Your task to perform on an android device: Open Android settings Image 0: 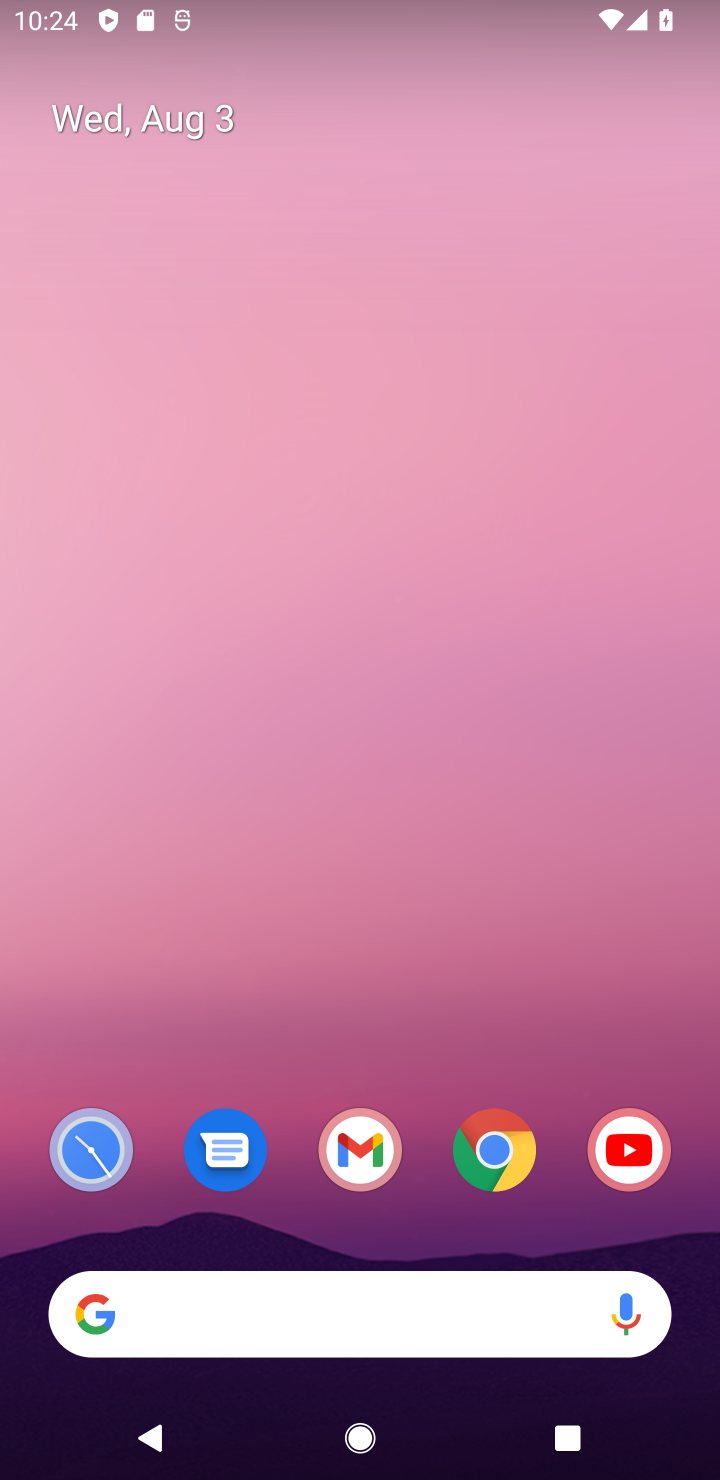
Step 0: press home button
Your task to perform on an android device: Open Android settings Image 1: 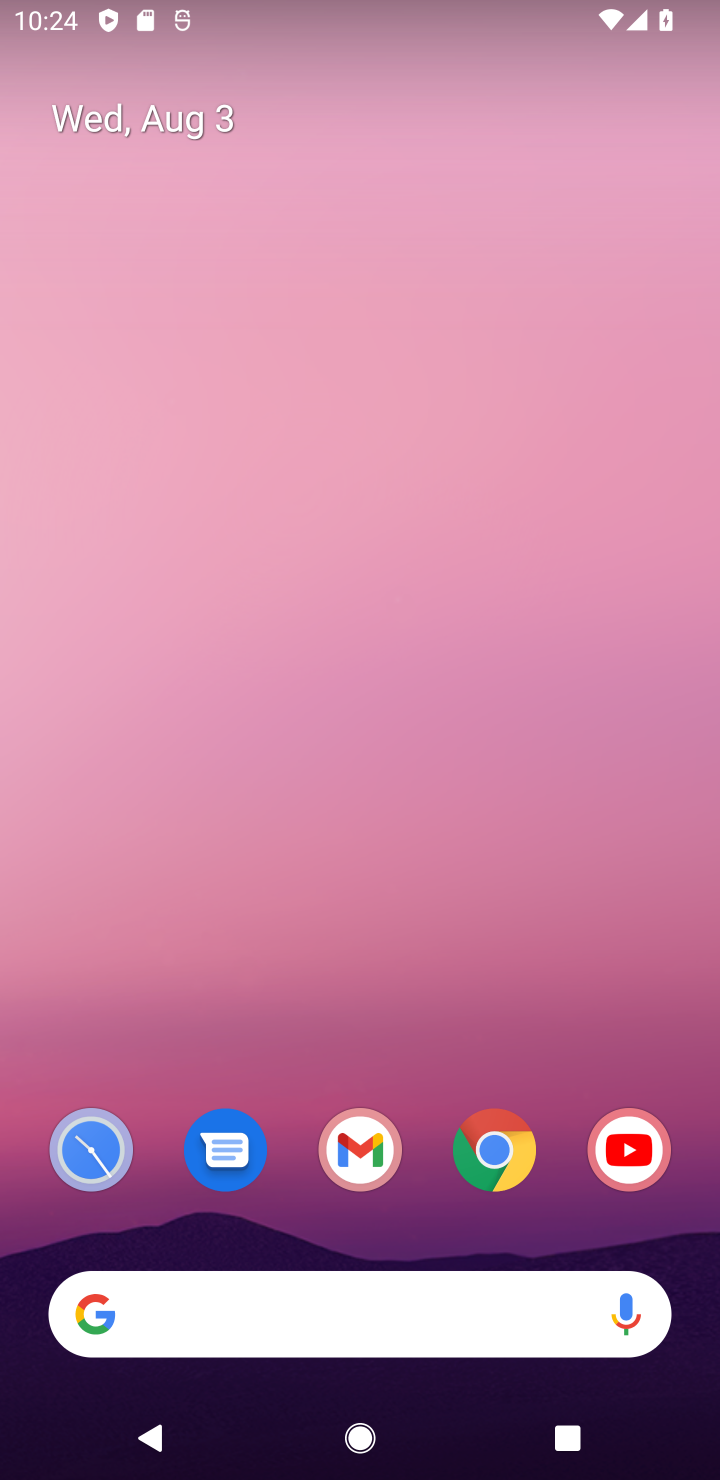
Step 1: drag from (562, 1002) to (520, 384)
Your task to perform on an android device: Open Android settings Image 2: 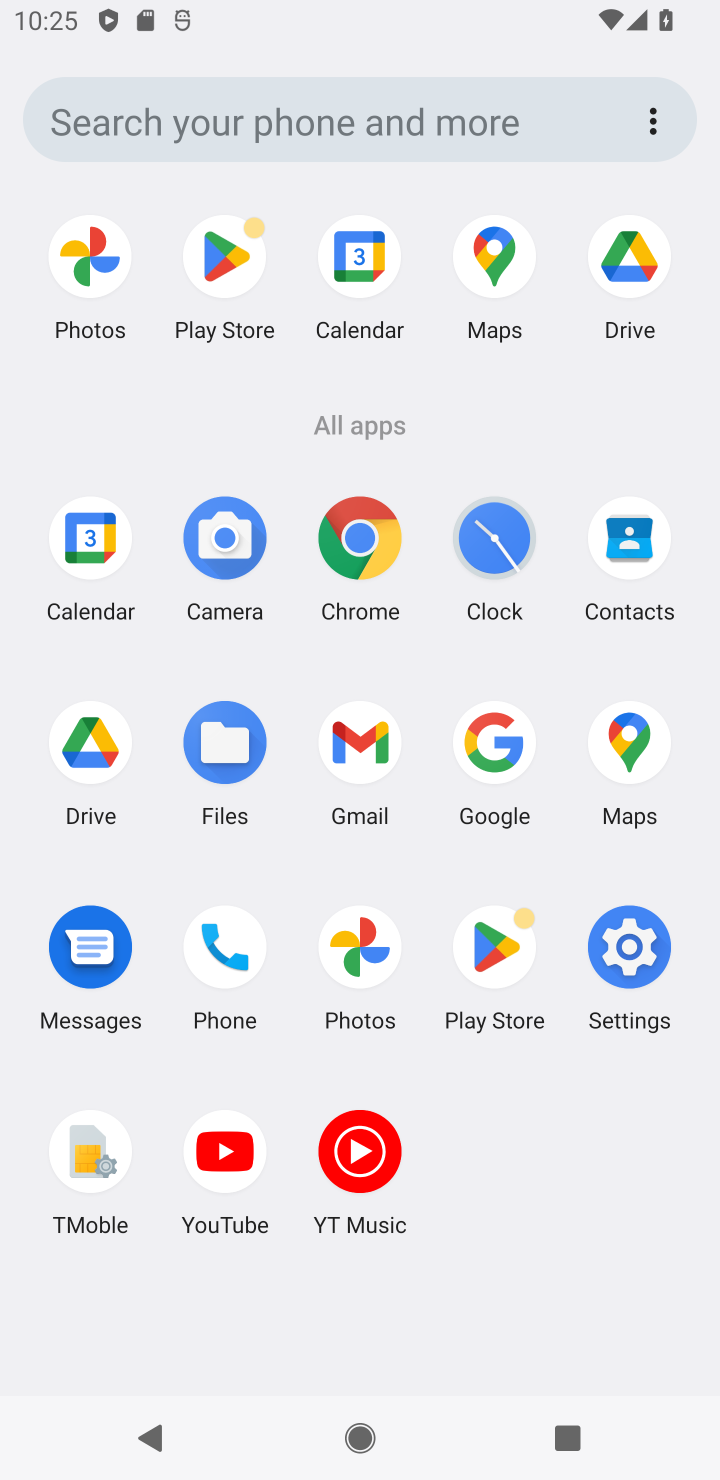
Step 2: click (645, 957)
Your task to perform on an android device: Open Android settings Image 3: 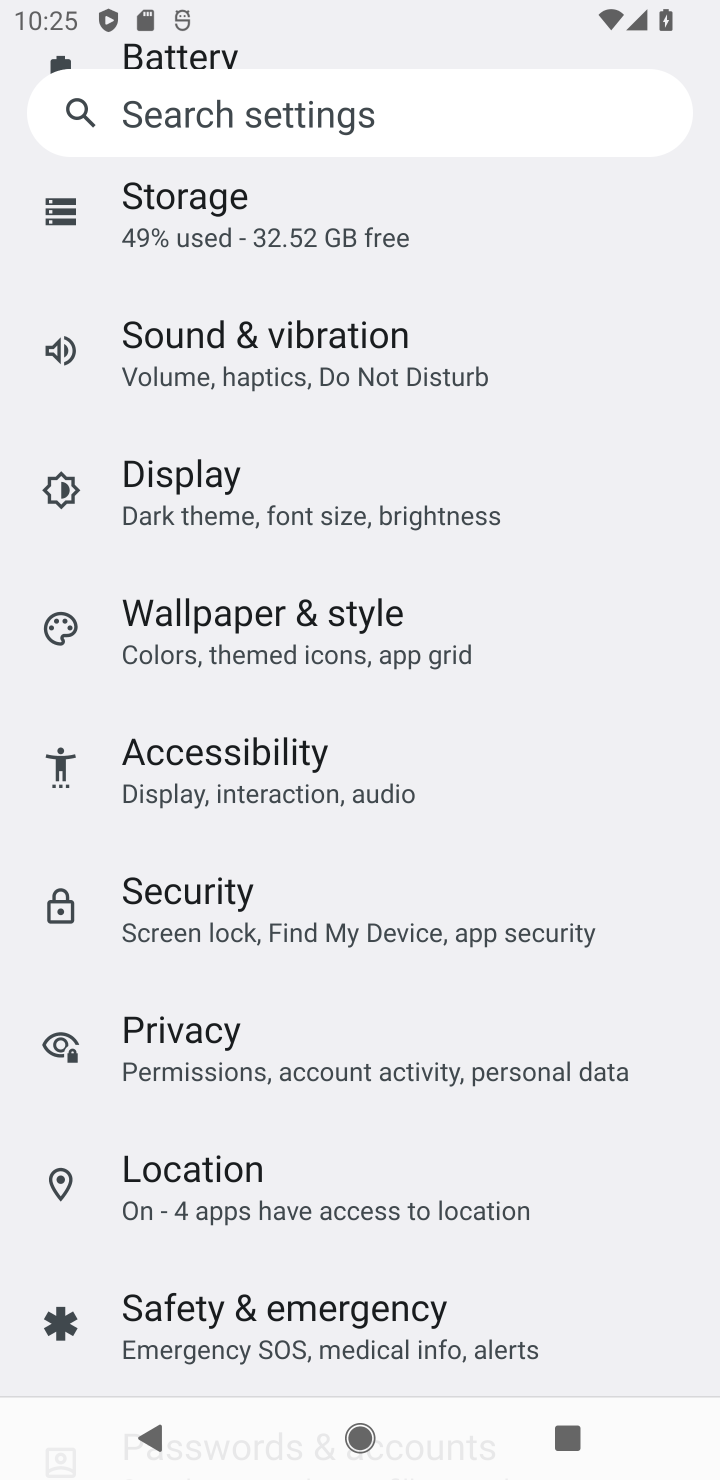
Step 3: drag from (639, 703) to (643, 824)
Your task to perform on an android device: Open Android settings Image 4: 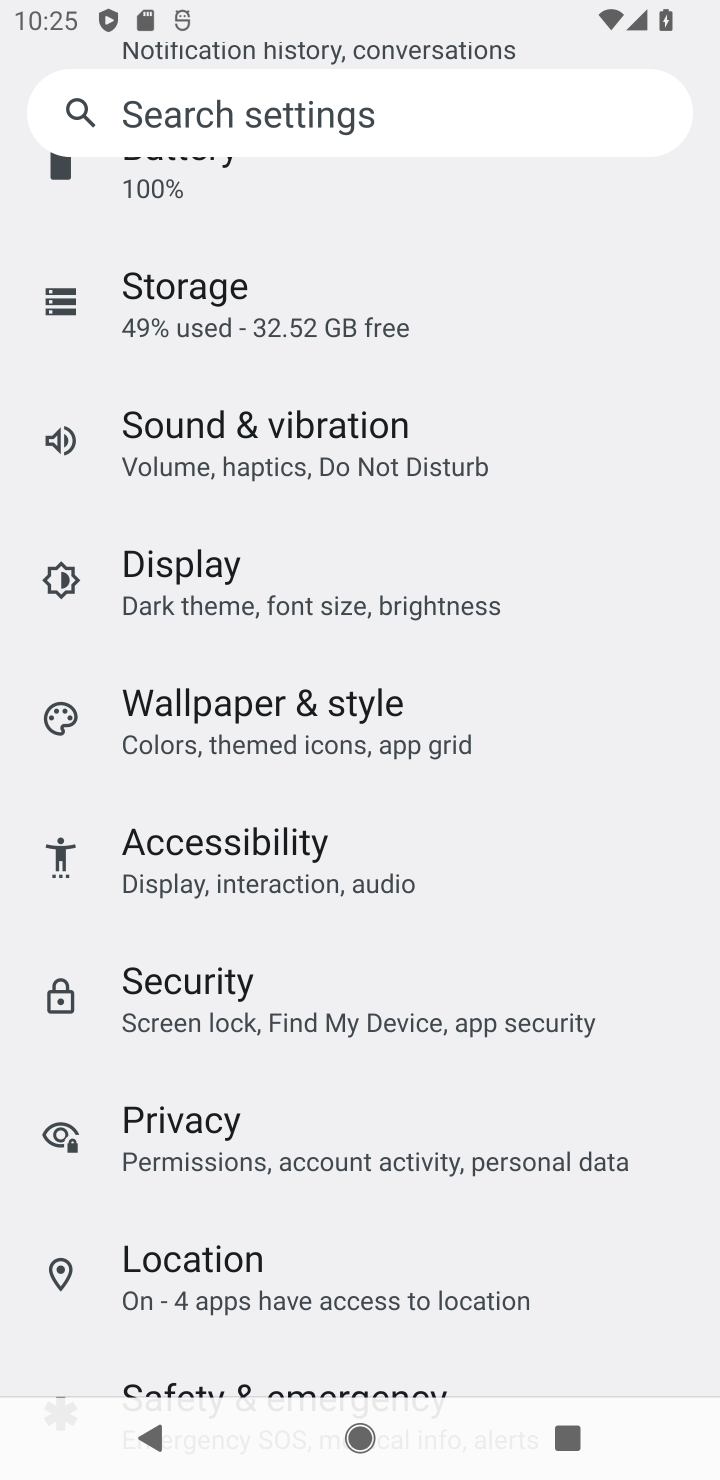
Step 4: drag from (627, 699) to (634, 827)
Your task to perform on an android device: Open Android settings Image 5: 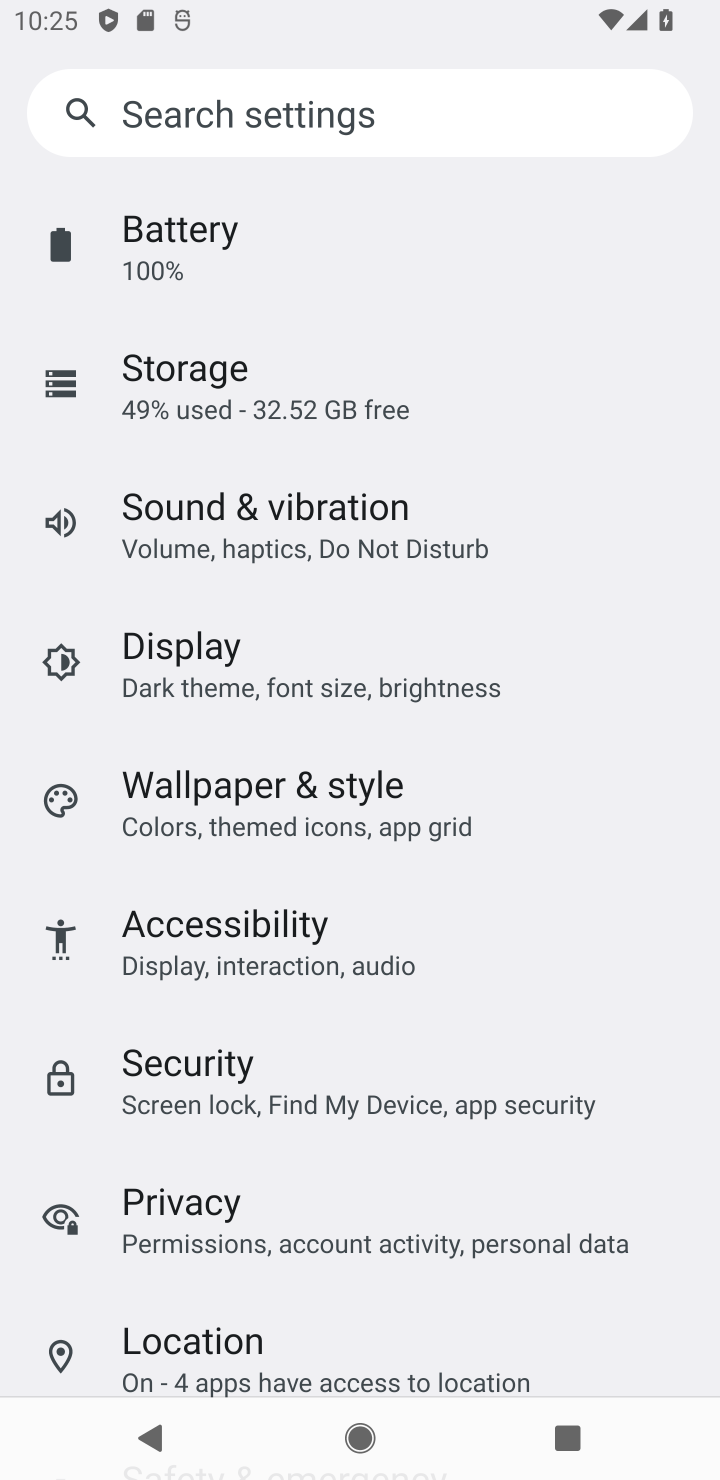
Step 5: drag from (631, 658) to (629, 813)
Your task to perform on an android device: Open Android settings Image 6: 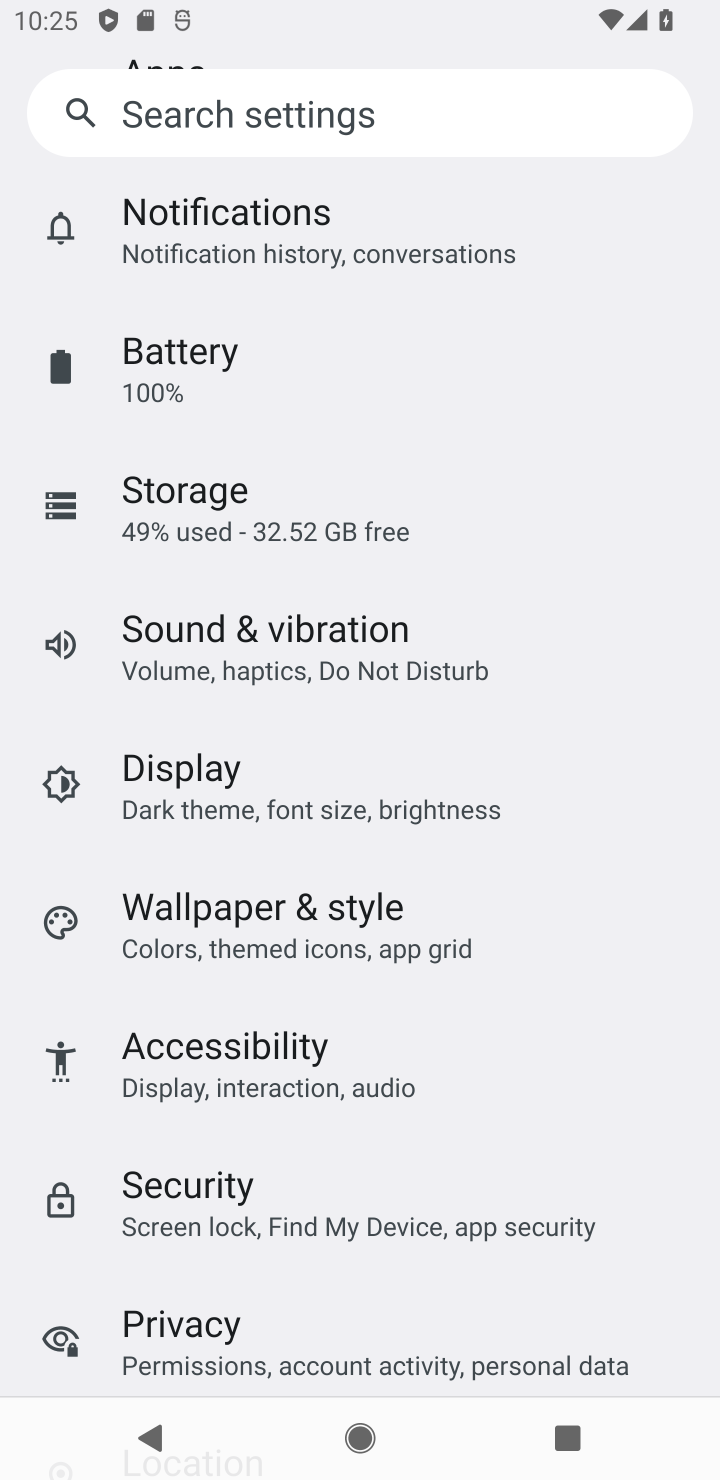
Step 6: drag from (611, 668) to (606, 853)
Your task to perform on an android device: Open Android settings Image 7: 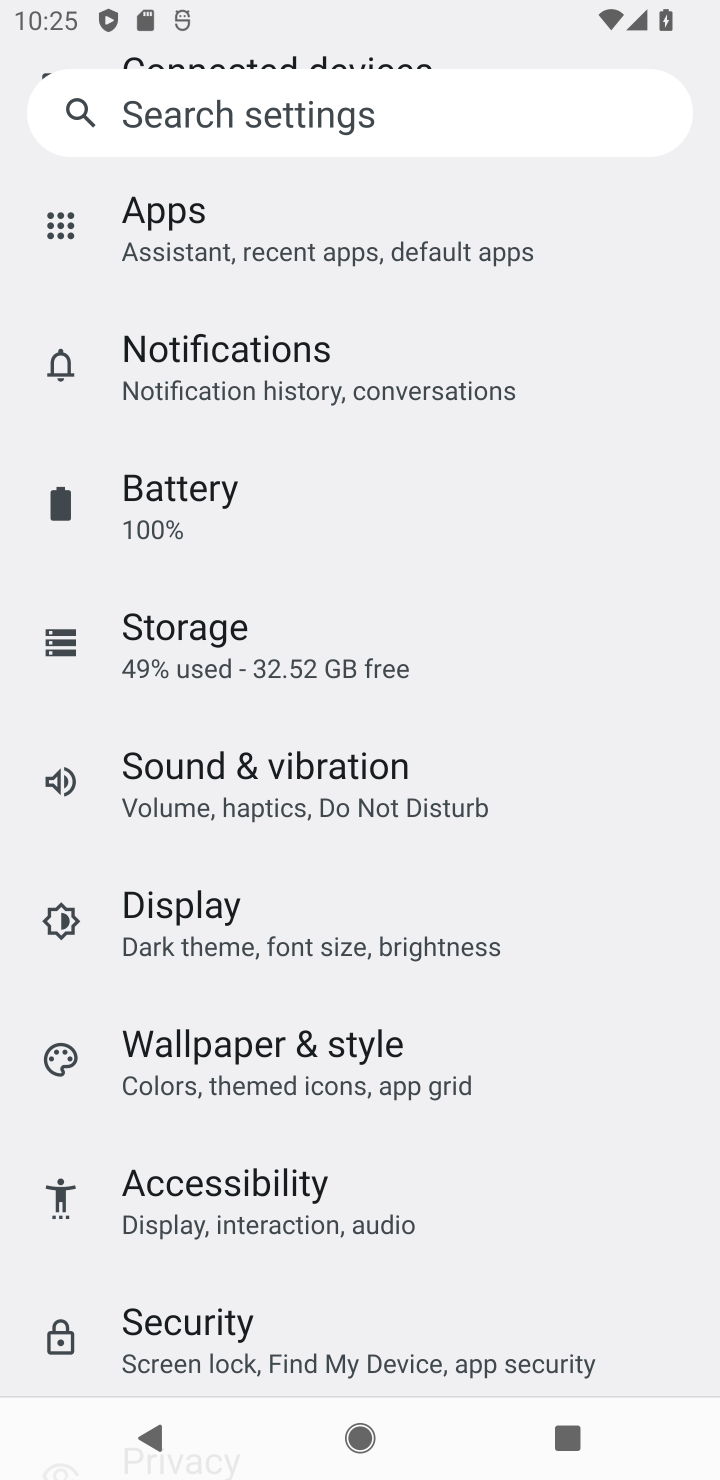
Step 7: drag from (591, 561) to (601, 785)
Your task to perform on an android device: Open Android settings Image 8: 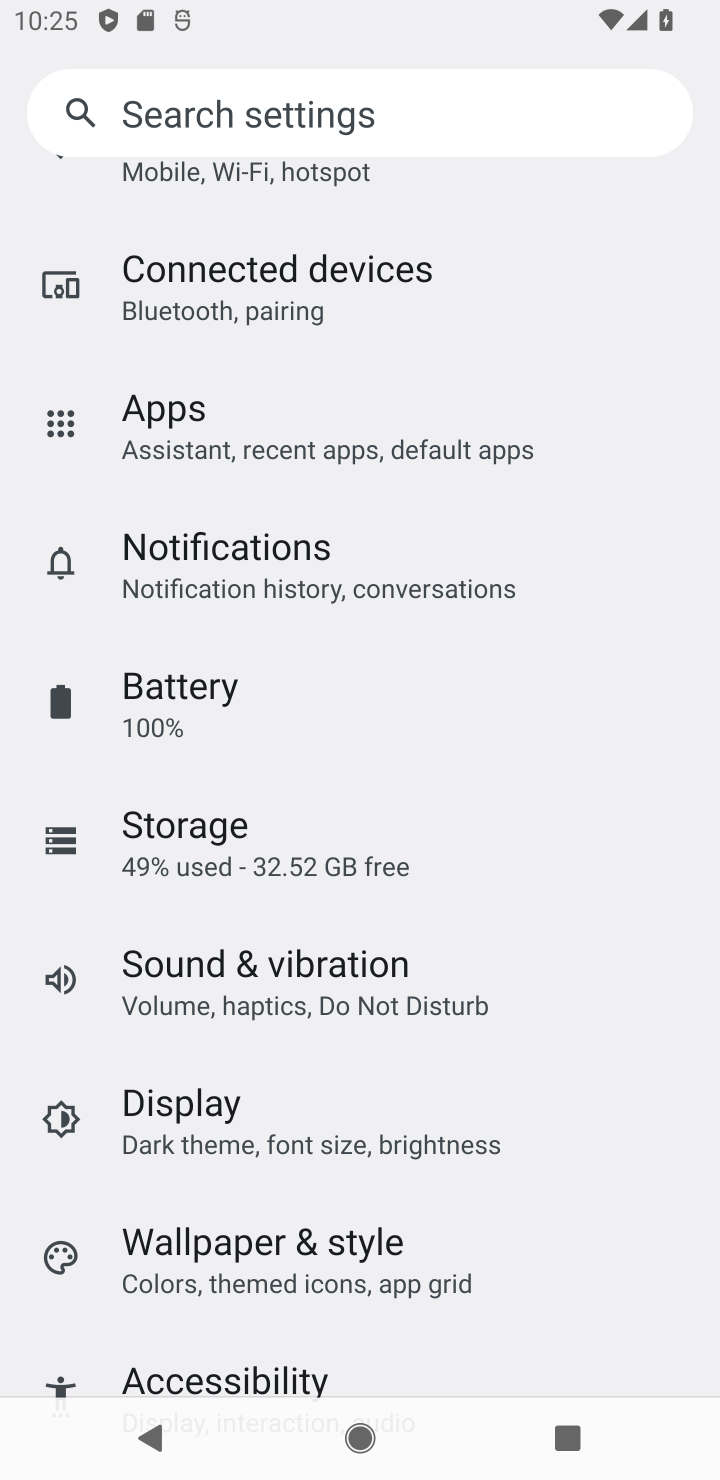
Step 8: drag from (607, 545) to (612, 878)
Your task to perform on an android device: Open Android settings Image 9: 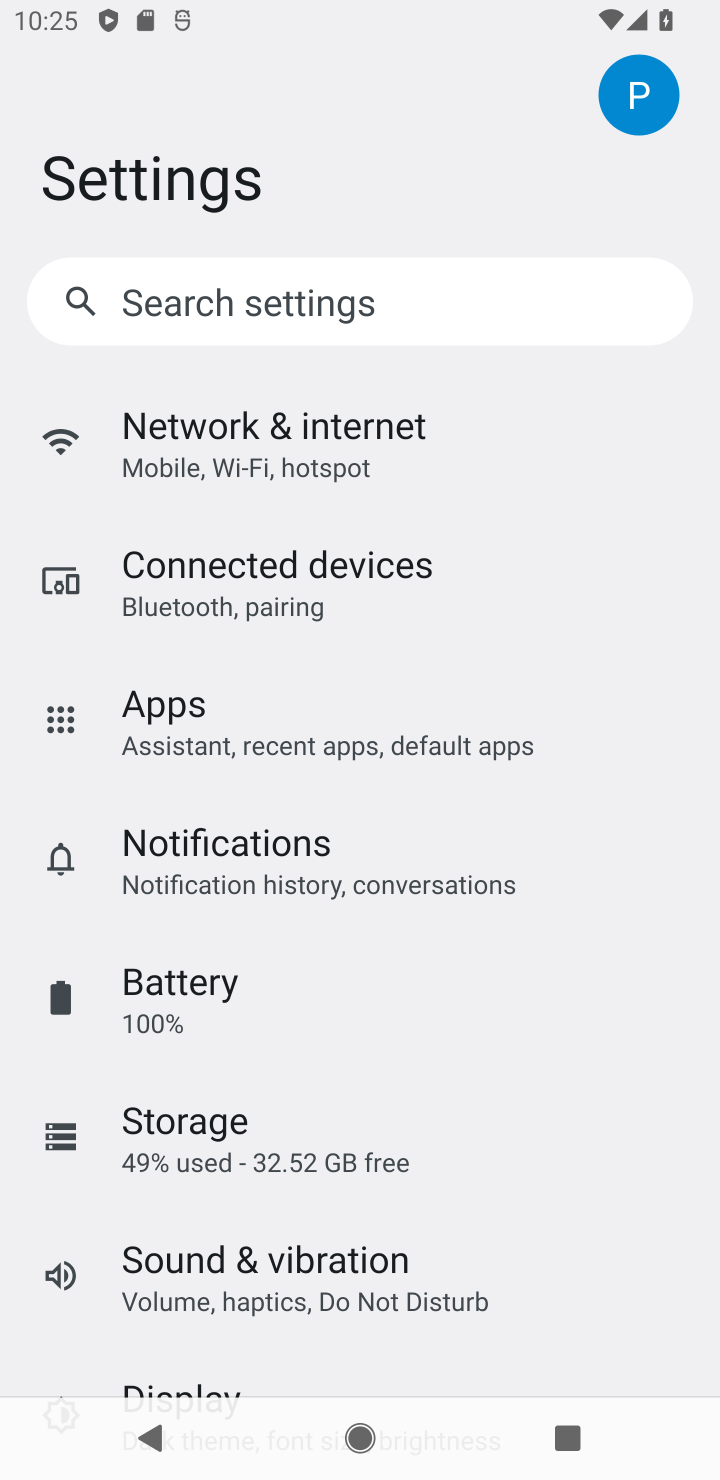
Step 9: drag from (573, 1117) to (591, 916)
Your task to perform on an android device: Open Android settings Image 10: 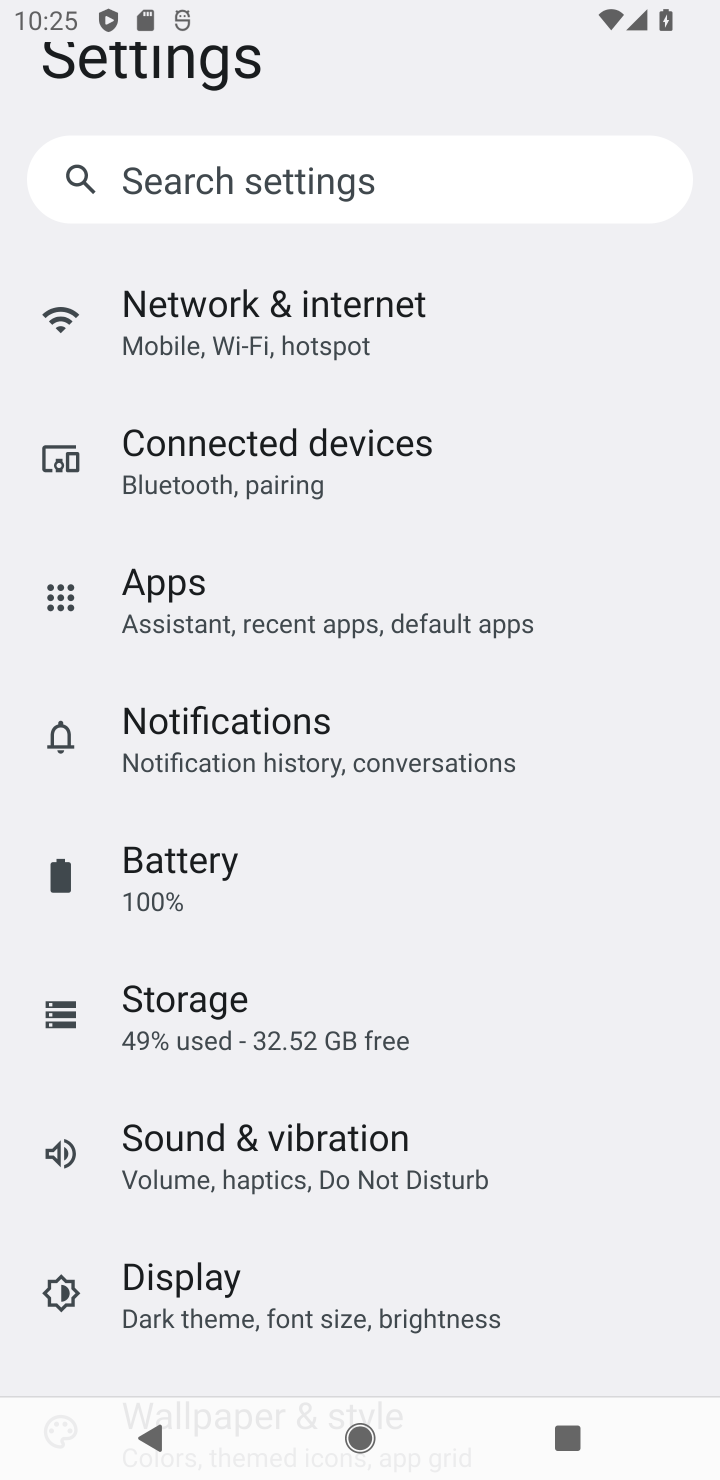
Step 10: drag from (585, 1195) to (593, 951)
Your task to perform on an android device: Open Android settings Image 11: 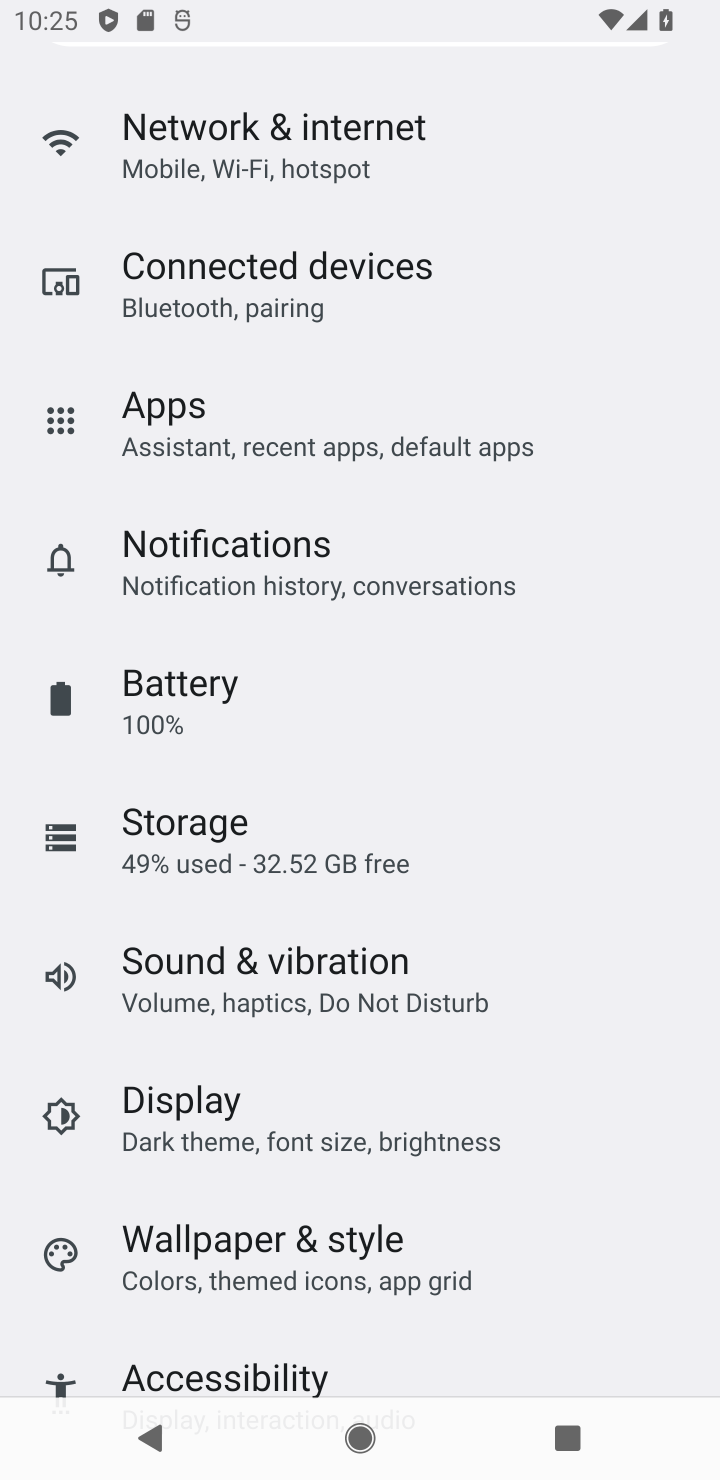
Step 11: drag from (589, 1209) to (583, 966)
Your task to perform on an android device: Open Android settings Image 12: 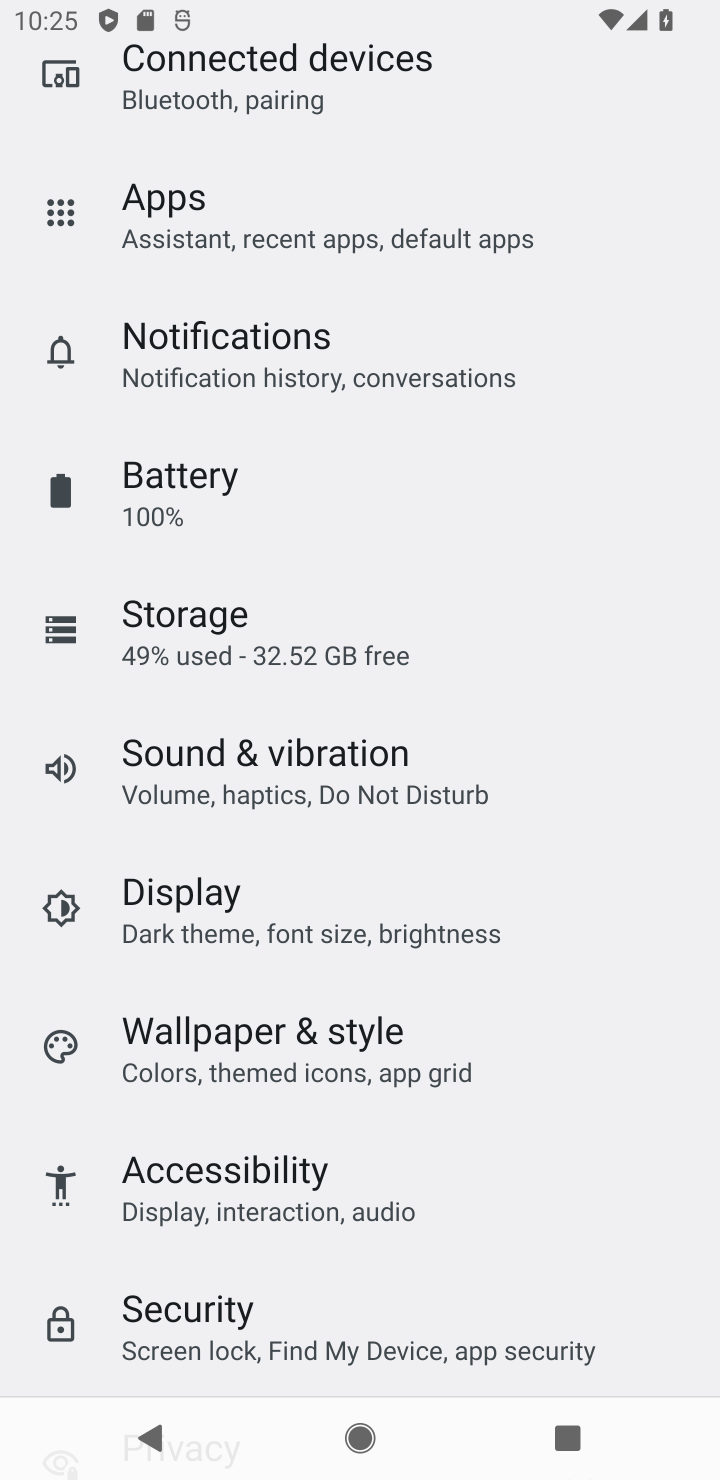
Step 12: drag from (587, 1229) to (595, 931)
Your task to perform on an android device: Open Android settings Image 13: 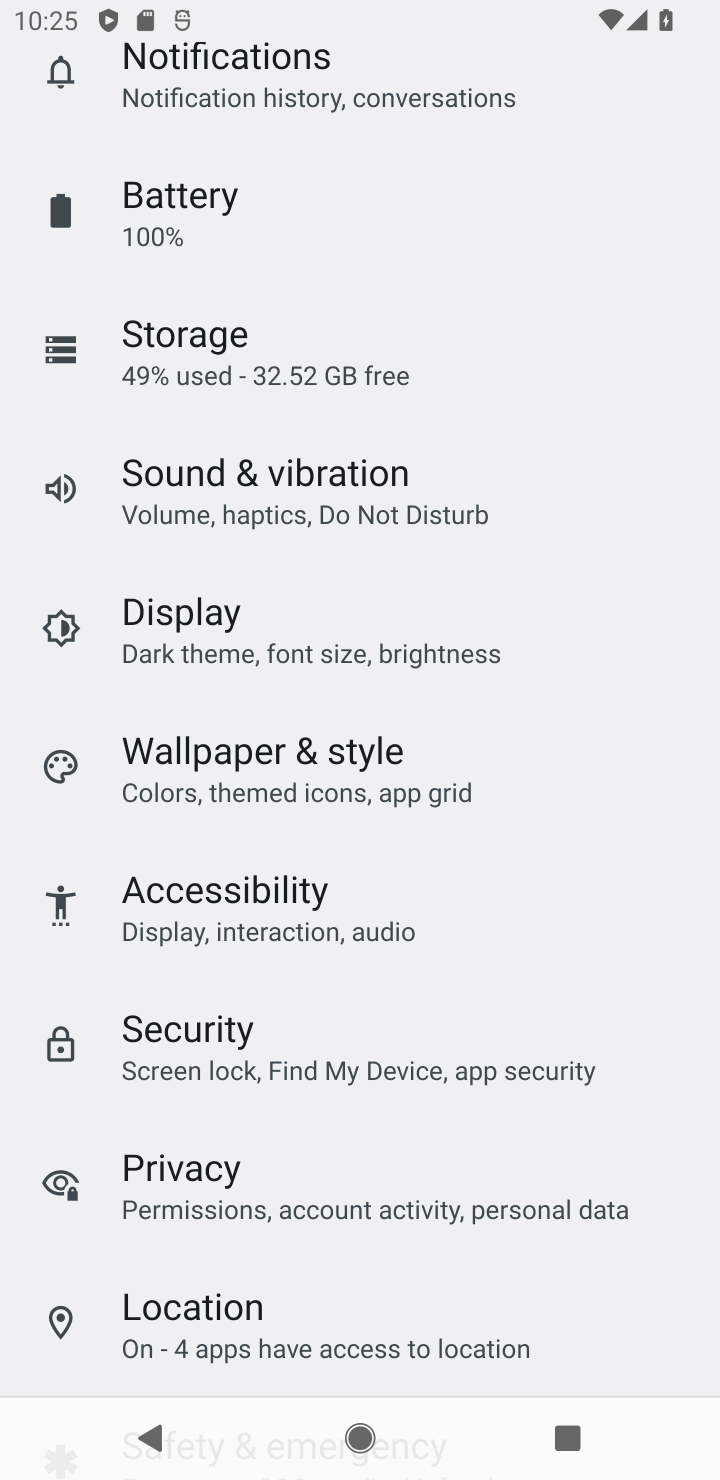
Step 13: drag from (602, 1288) to (637, 1003)
Your task to perform on an android device: Open Android settings Image 14: 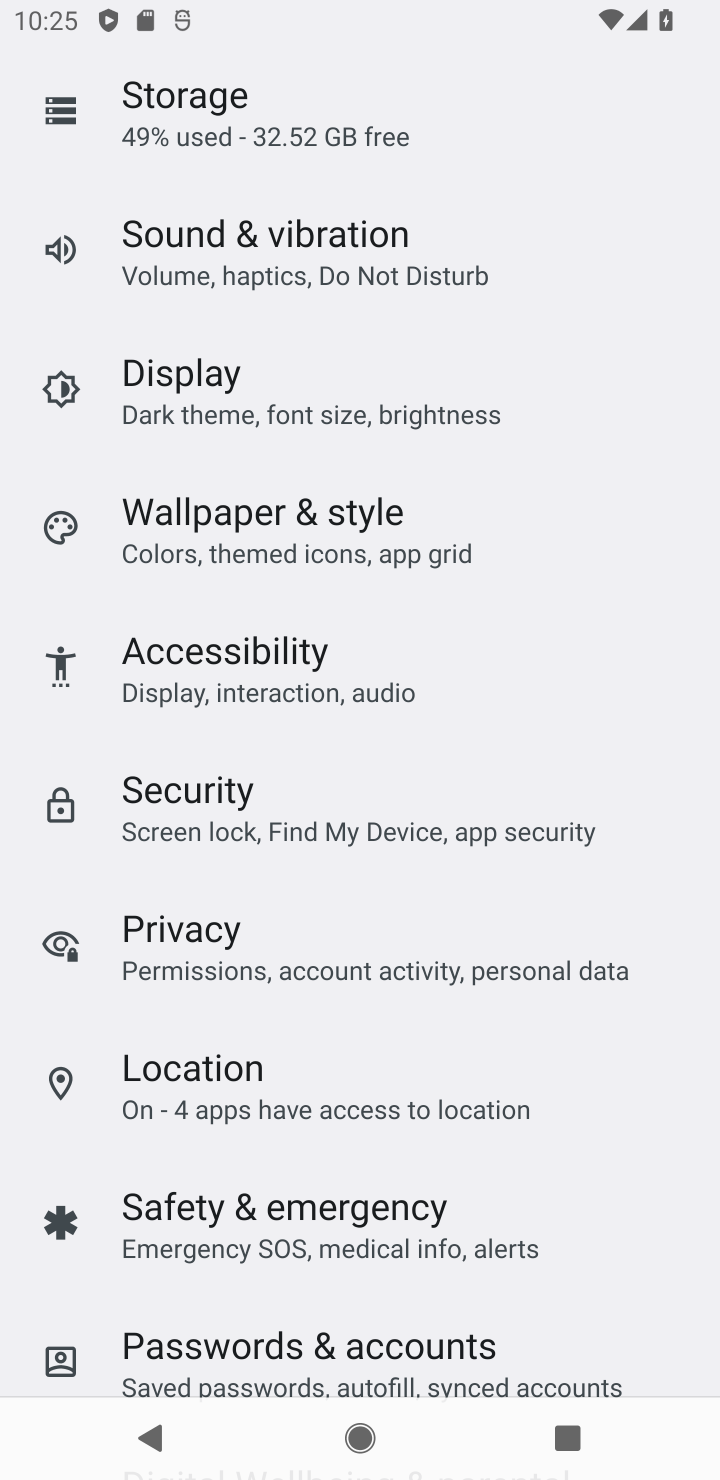
Step 14: drag from (637, 1305) to (645, 957)
Your task to perform on an android device: Open Android settings Image 15: 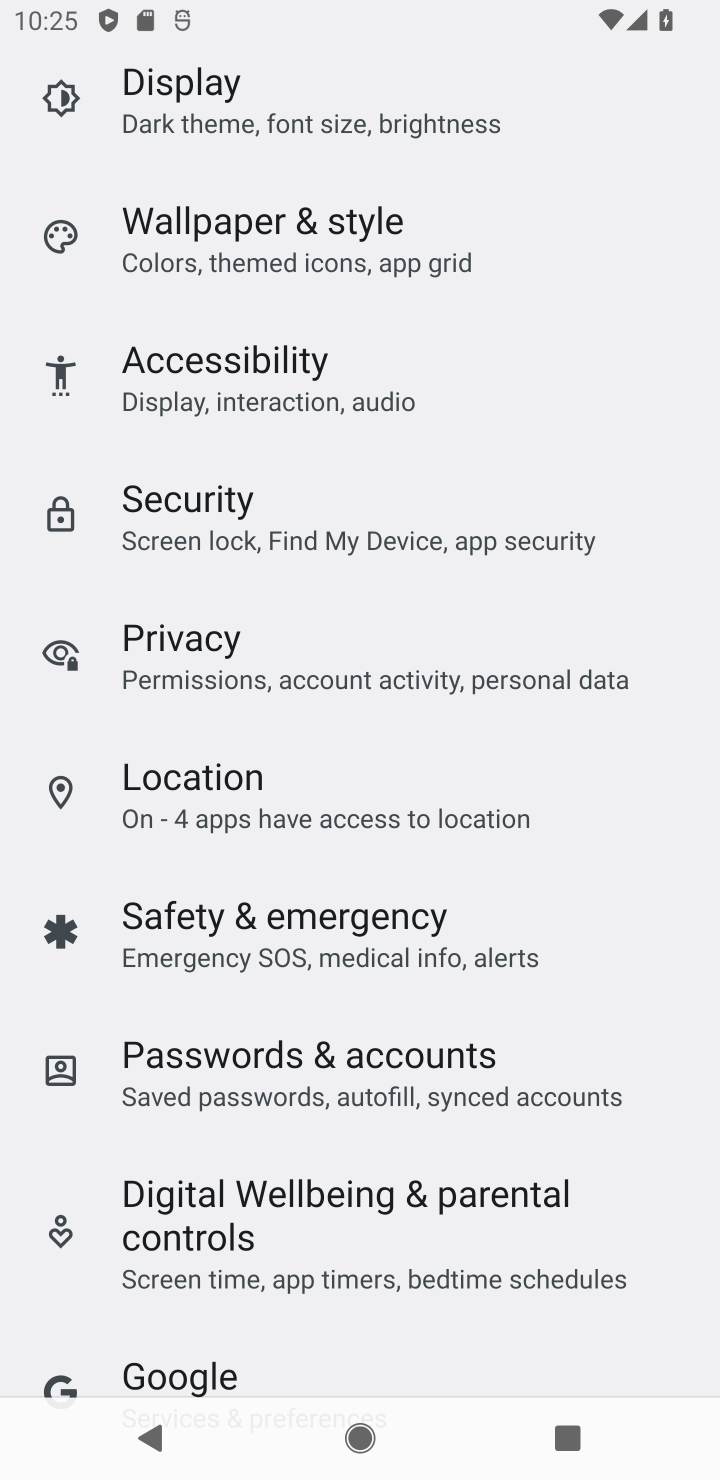
Step 15: drag from (645, 1326) to (650, 935)
Your task to perform on an android device: Open Android settings Image 16: 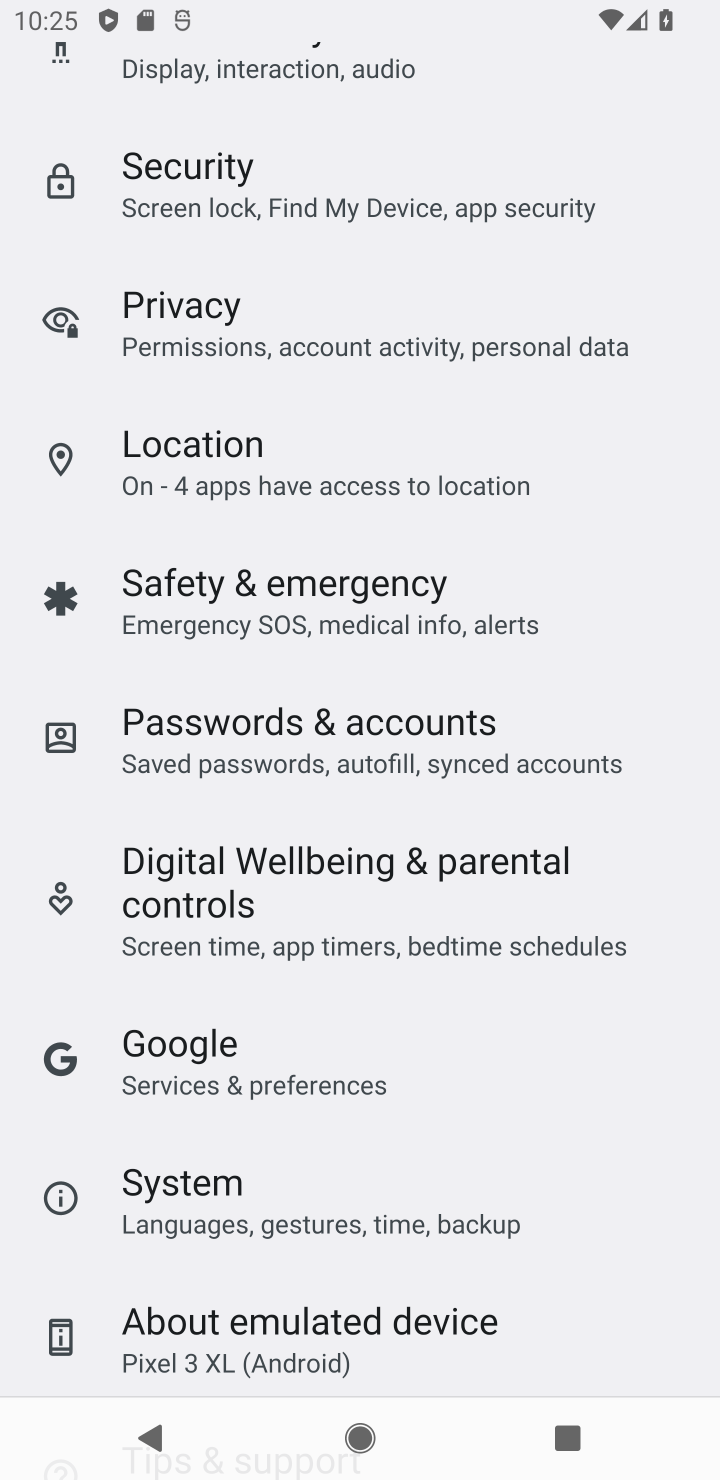
Step 16: drag from (618, 1296) to (616, 966)
Your task to perform on an android device: Open Android settings Image 17: 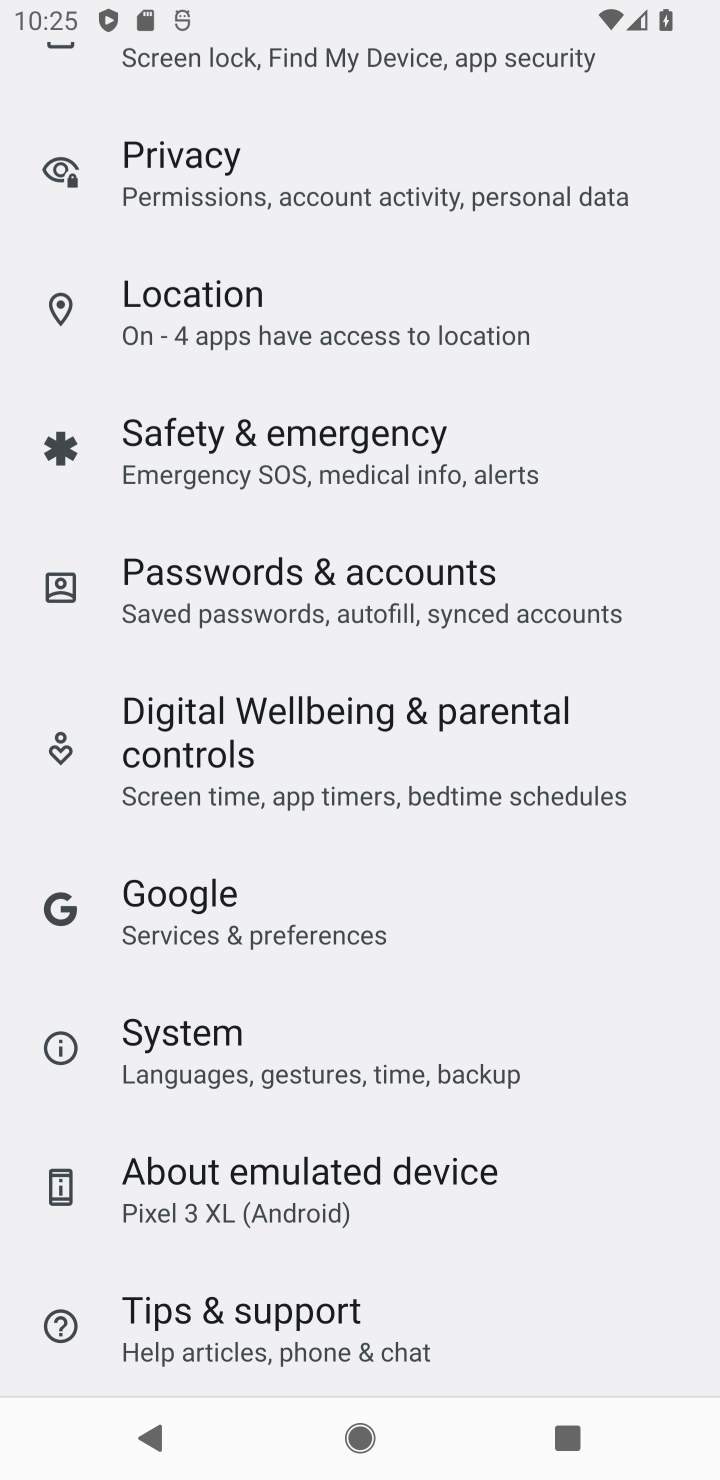
Step 17: click (536, 1060)
Your task to perform on an android device: Open Android settings Image 18: 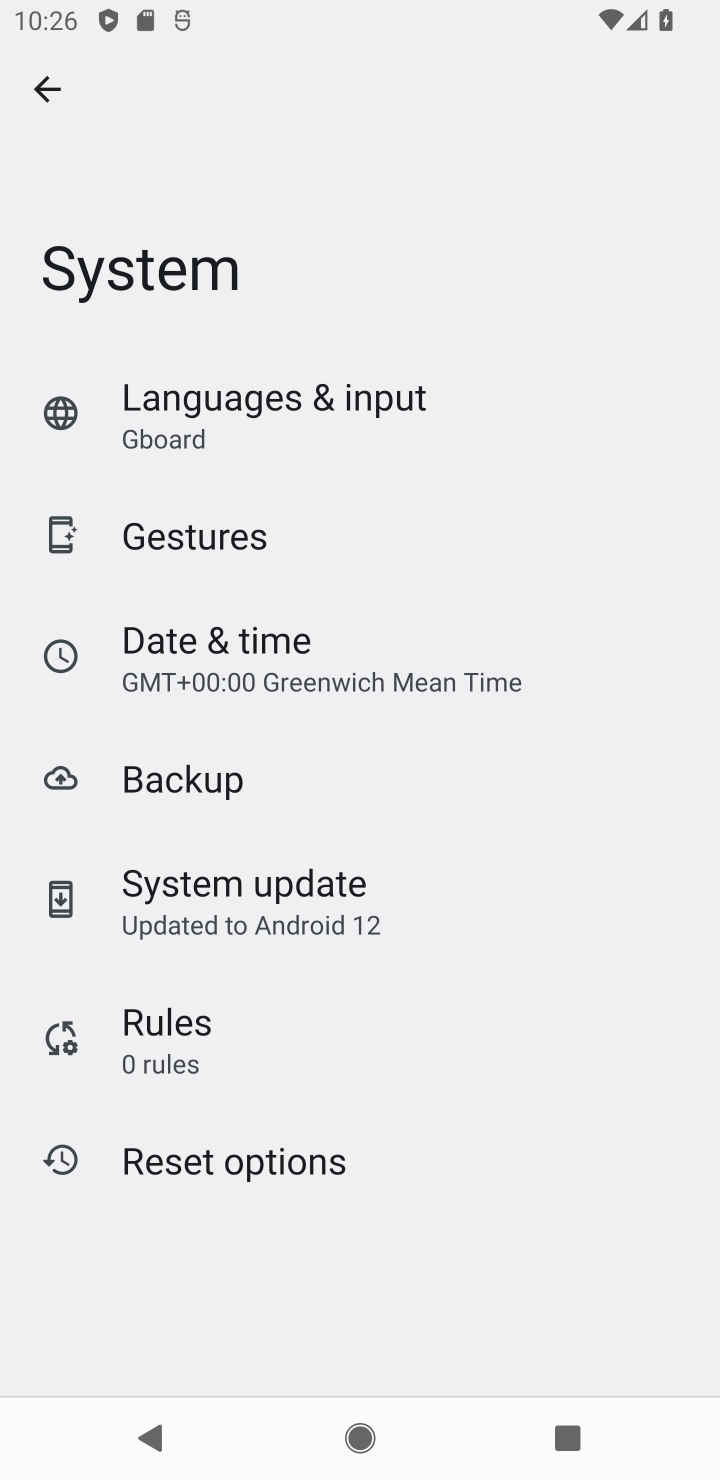
Step 18: click (336, 890)
Your task to perform on an android device: Open Android settings Image 19: 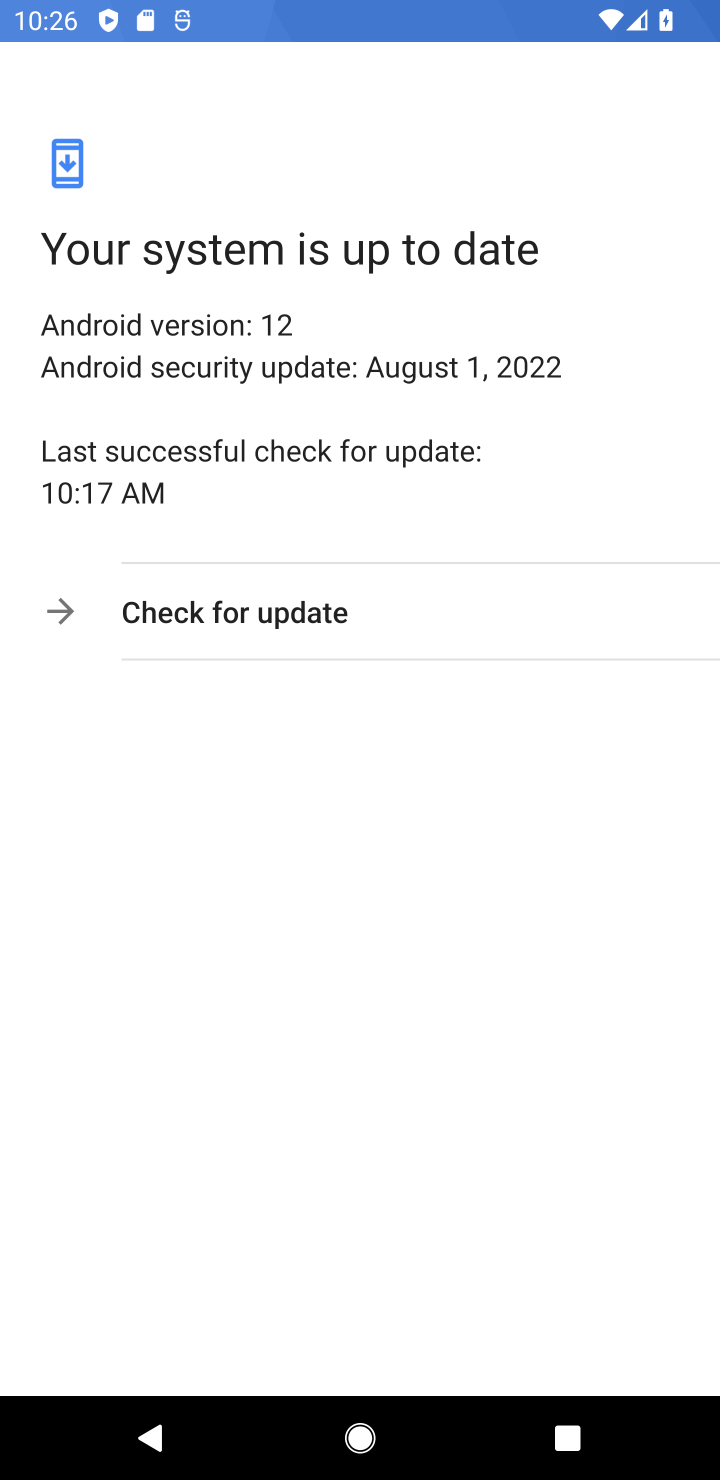
Step 19: task complete